Your task to perform on an android device: turn on airplane mode Image 0: 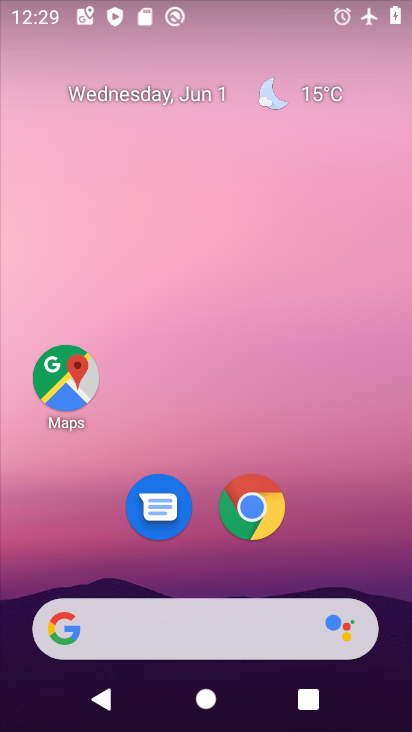
Step 0: drag from (332, 539) to (316, 147)
Your task to perform on an android device: turn on airplane mode Image 1: 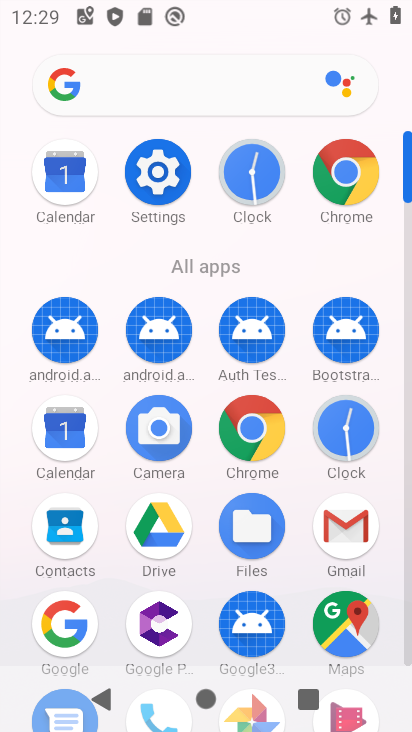
Step 1: click (157, 172)
Your task to perform on an android device: turn on airplane mode Image 2: 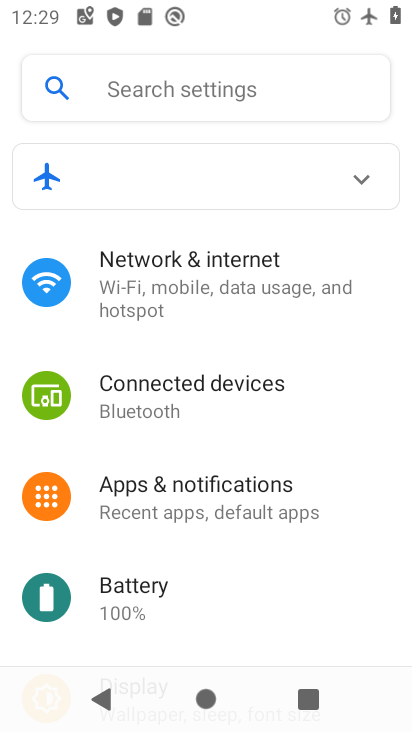
Step 2: click (158, 298)
Your task to perform on an android device: turn on airplane mode Image 3: 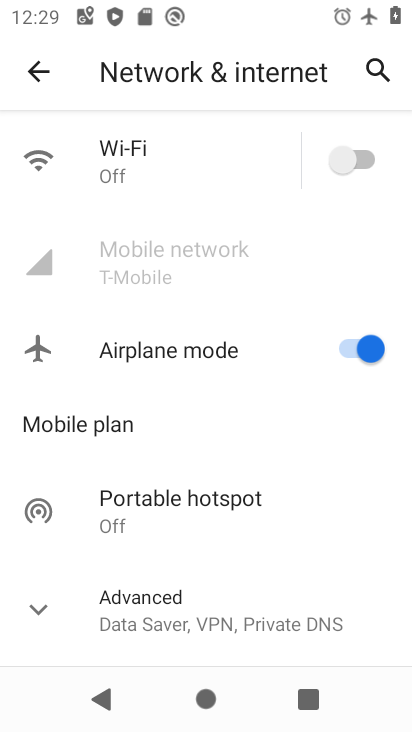
Step 3: task complete